Your task to perform on an android device: open chrome privacy settings Image 0: 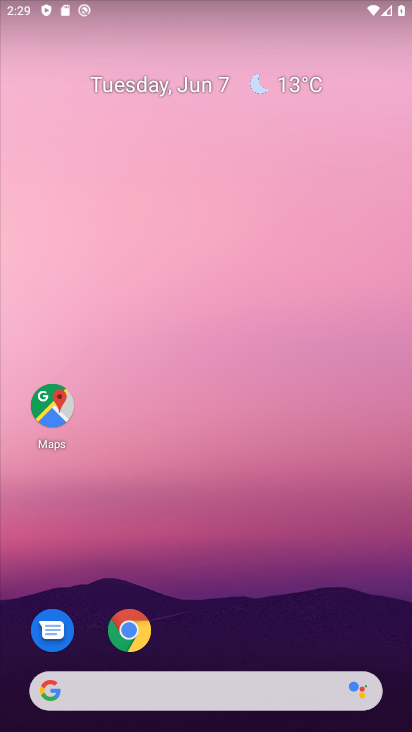
Step 0: click (139, 640)
Your task to perform on an android device: open chrome privacy settings Image 1: 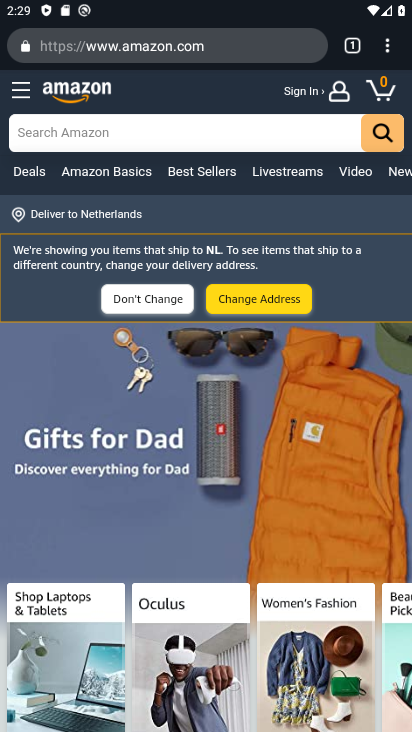
Step 1: drag from (382, 49) to (265, 542)
Your task to perform on an android device: open chrome privacy settings Image 2: 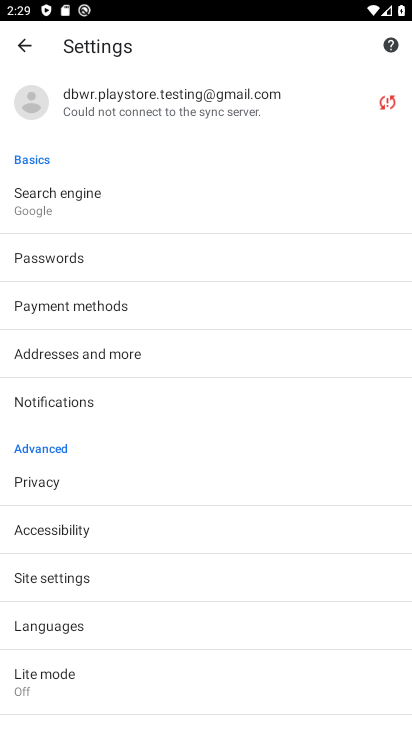
Step 2: click (46, 489)
Your task to perform on an android device: open chrome privacy settings Image 3: 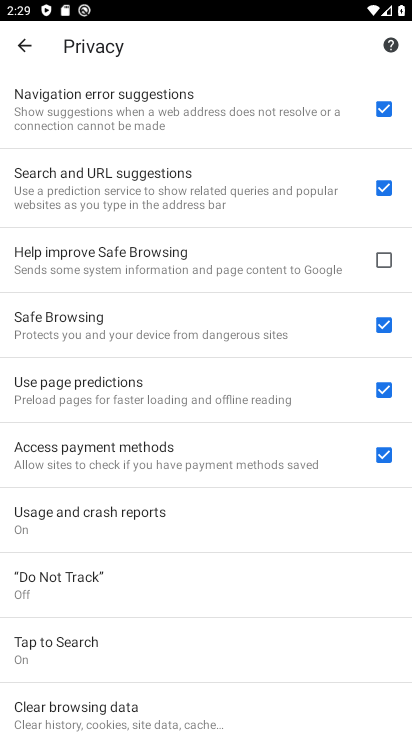
Step 3: task complete